Your task to perform on an android device: visit the assistant section in the google photos Image 0: 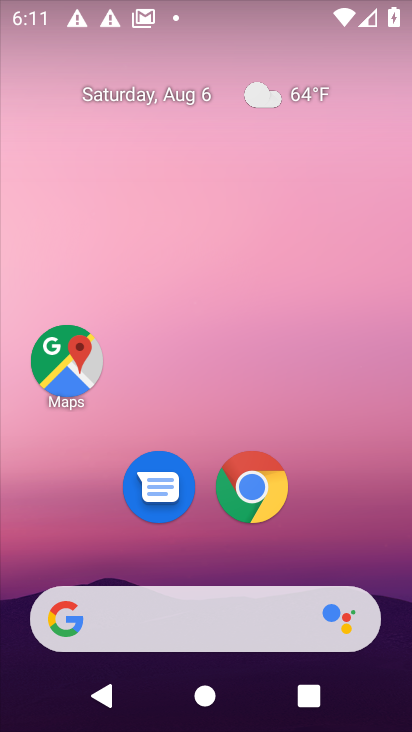
Step 0: drag from (193, 430) to (205, 37)
Your task to perform on an android device: visit the assistant section in the google photos Image 1: 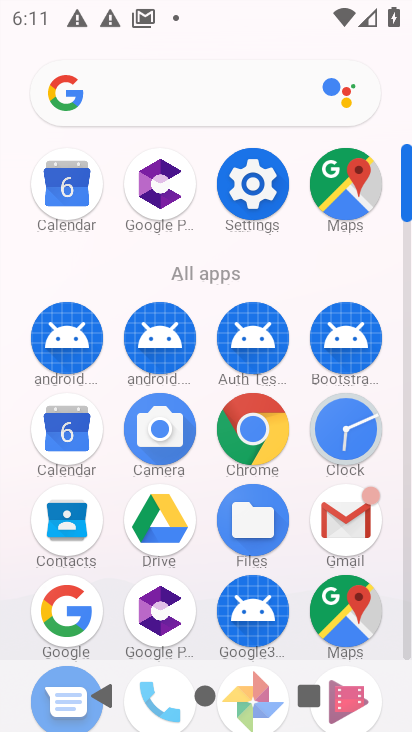
Step 1: drag from (240, 601) to (255, 66)
Your task to perform on an android device: visit the assistant section in the google photos Image 2: 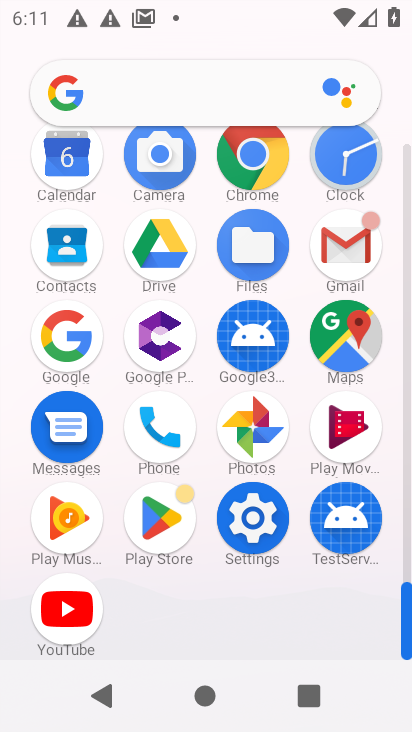
Step 2: click (248, 430)
Your task to perform on an android device: visit the assistant section in the google photos Image 3: 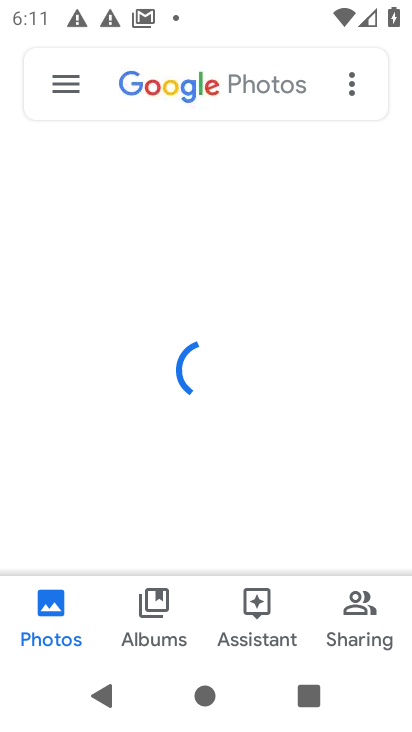
Step 3: click (265, 616)
Your task to perform on an android device: visit the assistant section in the google photos Image 4: 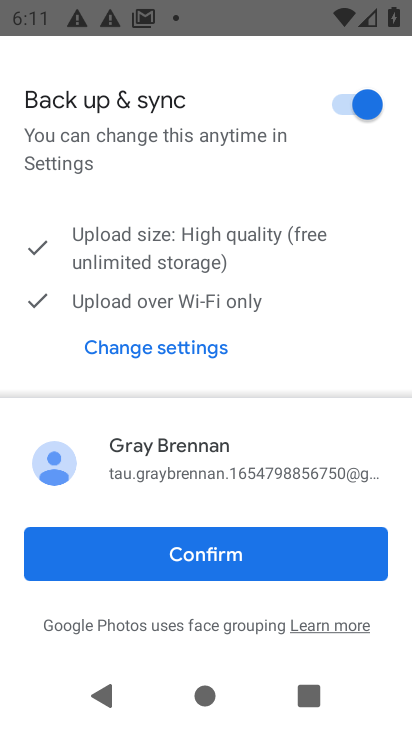
Step 4: click (158, 553)
Your task to perform on an android device: visit the assistant section in the google photos Image 5: 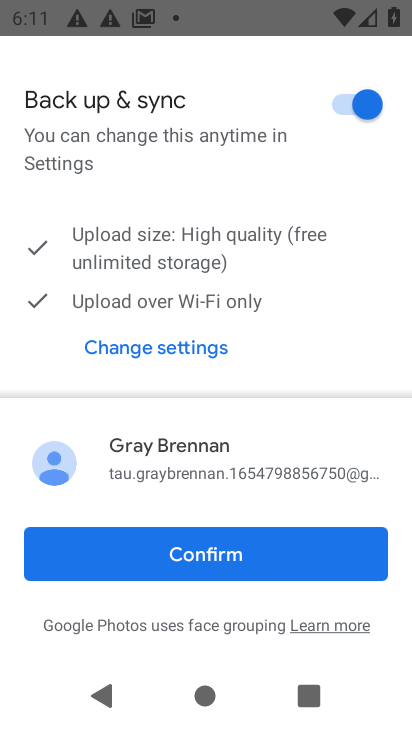
Step 5: click (158, 553)
Your task to perform on an android device: visit the assistant section in the google photos Image 6: 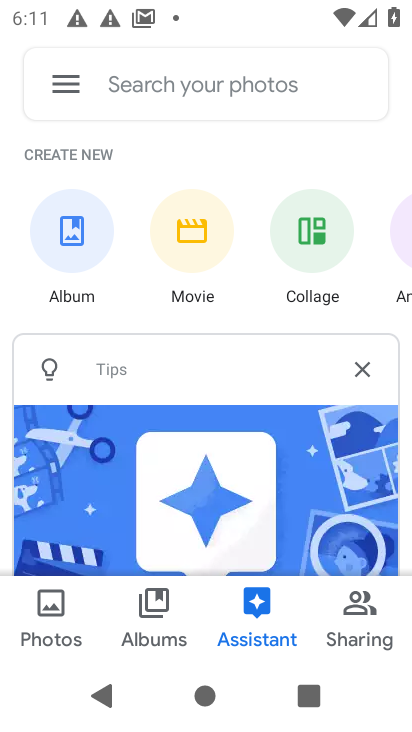
Step 6: task complete